Your task to perform on an android device: turn vacation reply on in the gmail app Image 0: 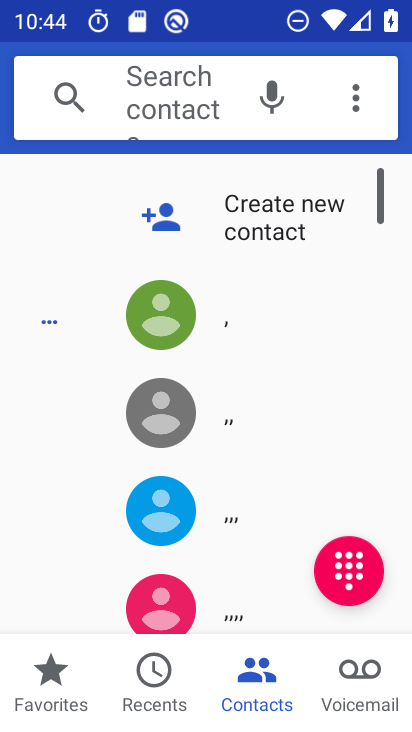
Step 0: press home button
Your task to perform on an android device: turn vacation reply on in the gmail app Image 1: 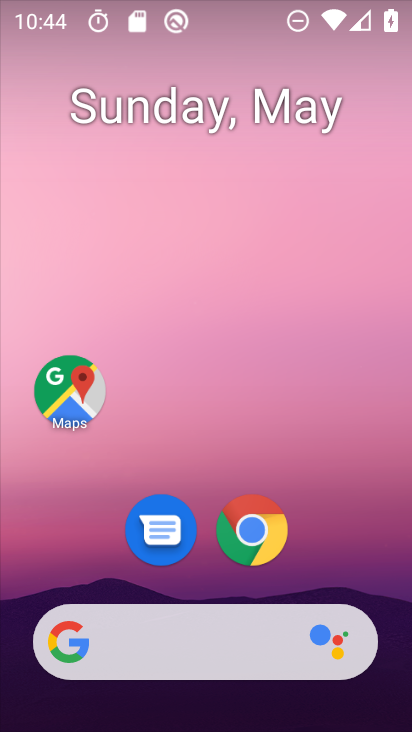
Step 1: drag from (263, 683) to (210, 63)
Your task to perform on an android device: turn vacation reply on in the gmail app Image 2: 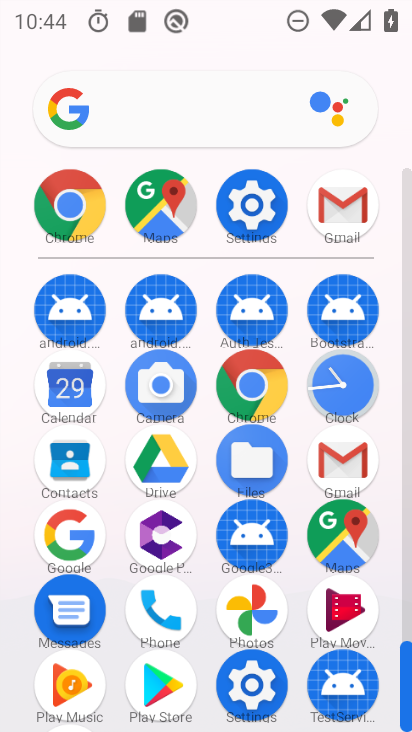
Step 2: click (326, 213)
Your task to perform on an android device: turn vacation reply on in the gmail app Image 3: 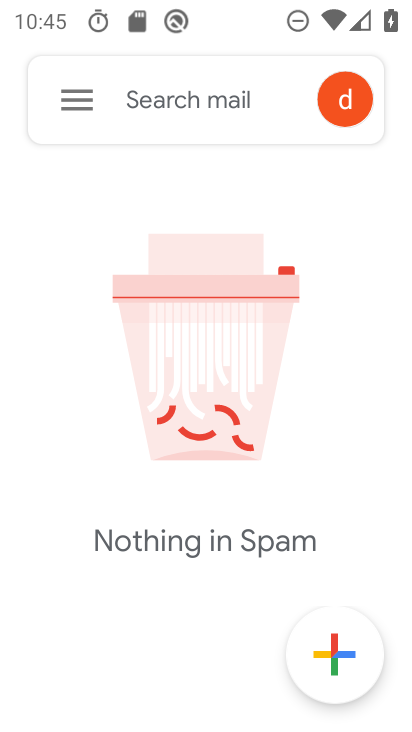
Step 3: click (68, 97)
Your task to perform on an android device: turn vacation reply on in the gmail app Image 4: 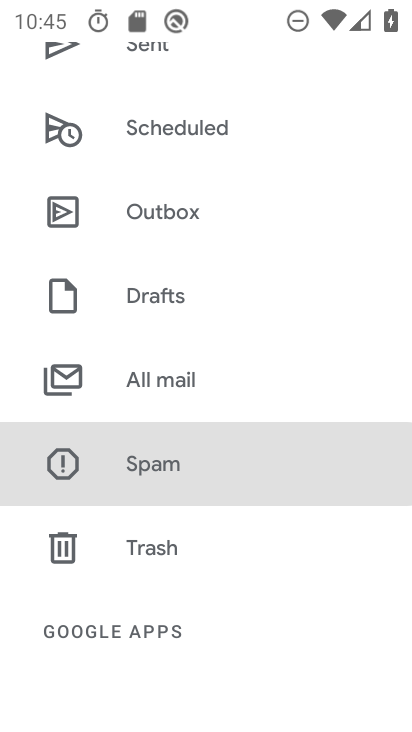
Step 4: drag from (168, 515) to (185, 320)
Your task to perform on an android device: turn vacation reply on in the gmail app Image 5: 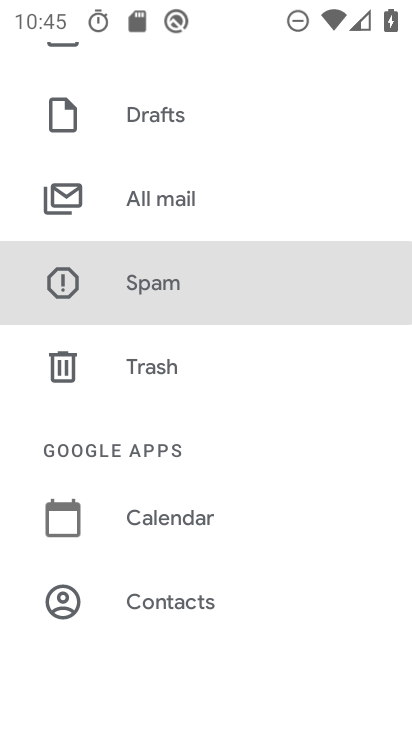
Step 5: drag from (145, 568) to (201, 161)
Your task to perform on an android device: turn vacation reply on in the gmail app Image 6: 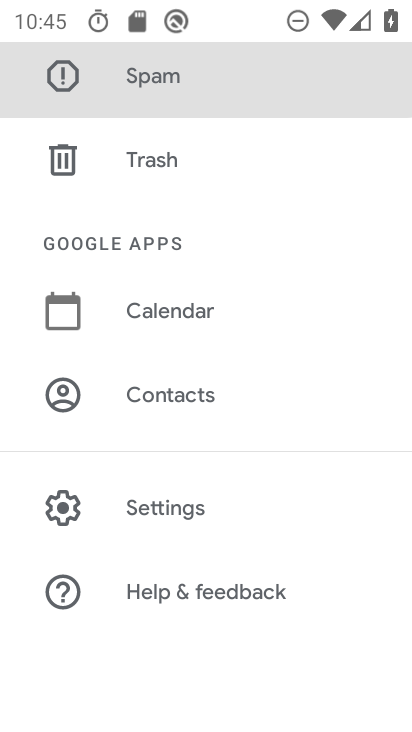
Step 6: drag from (194, 468) to (214, 265)
Your task to perform on an android device: turn vacation reply on in the gmail app Image 7: 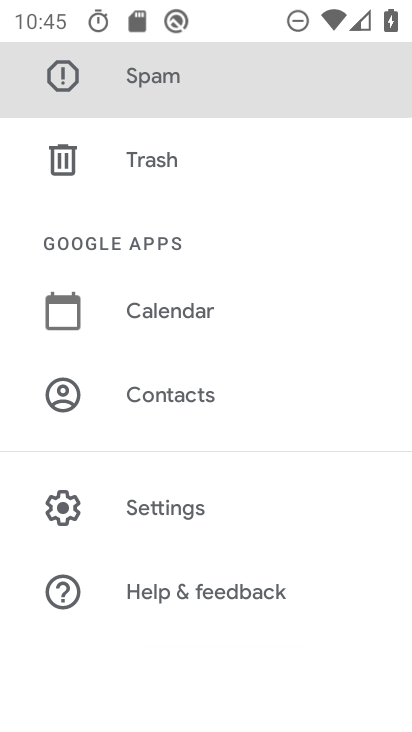
Step 7: click (167, 506)
Your task to perform on an android device: turn vacation reply on in the gmail app Image 8: 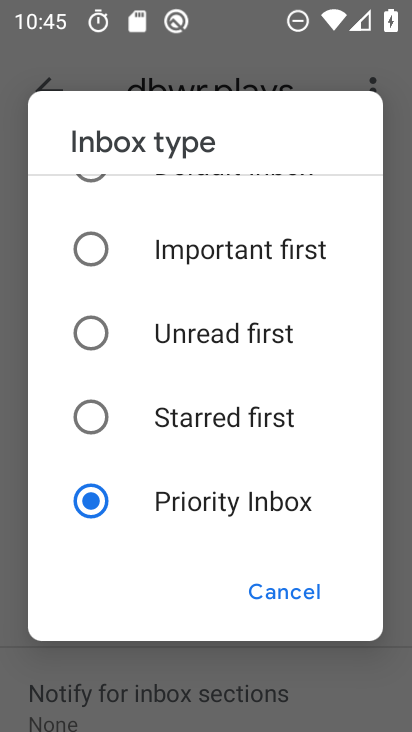
Step 8: click (273, 591)
Your task to perform on an android device: turn vacation reply on in the gmail app Image 9: 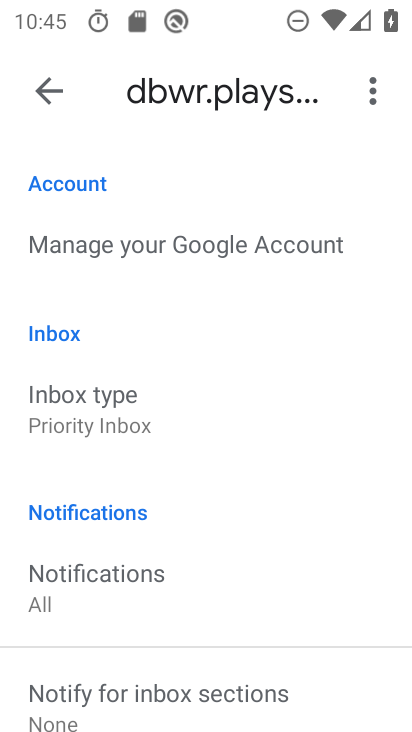
Step 9: drag from (268, 571) to (304, 239)
Your task to perform on an android device: turn vacation reply on in the gmail app Image 10: 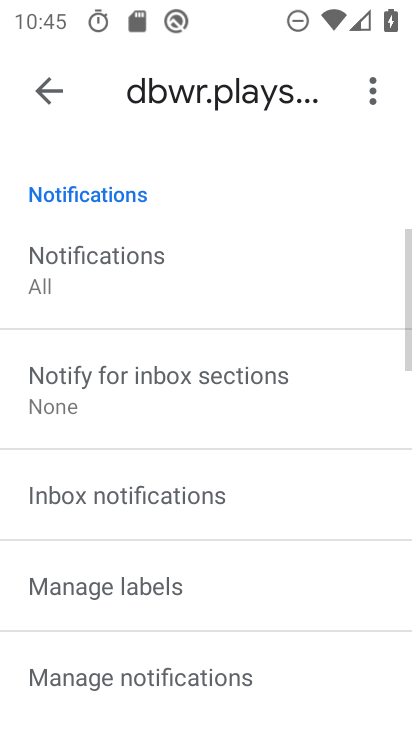
Step 10: drag from (280, 418) to (284, 312)
Your task to perform on an android device: turn vacation reply on in the gmail app Image 11: 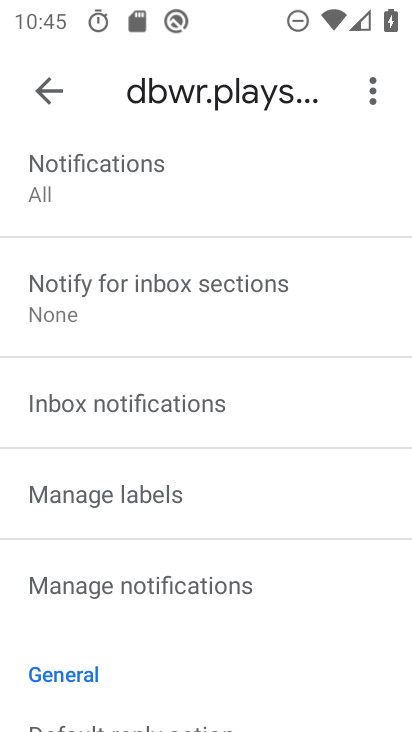
Step 11: drag from (213, 584) to (216, 325)
Your task to perform on an android device: turn vacation reply on in the gmail app Image 12: 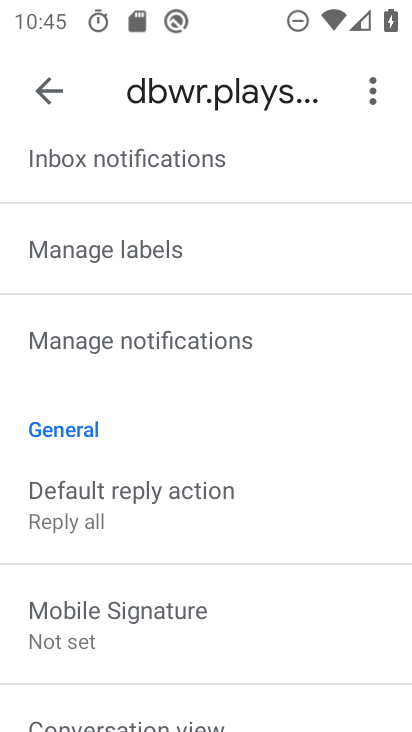
Step 12: drag from (214, 573) to (244, 287)
Your task to perform on an android device: turn vacation reply on in the gmail app Image 13: 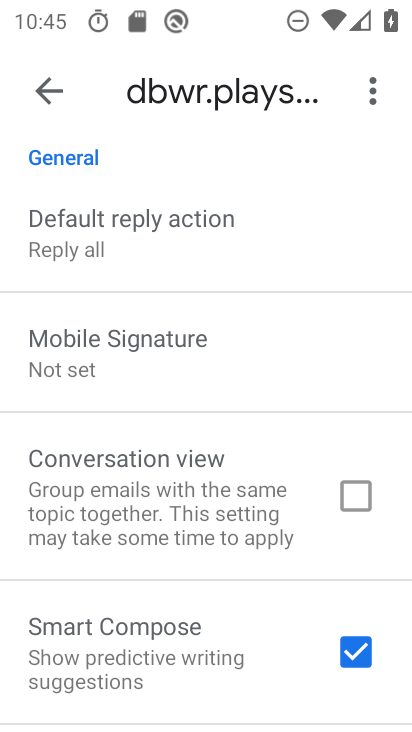
Step 13: drag from (173, 602) to (230, 230)
Your task to perform on an android device: turn vacation reply on in the gmail app Image 14: 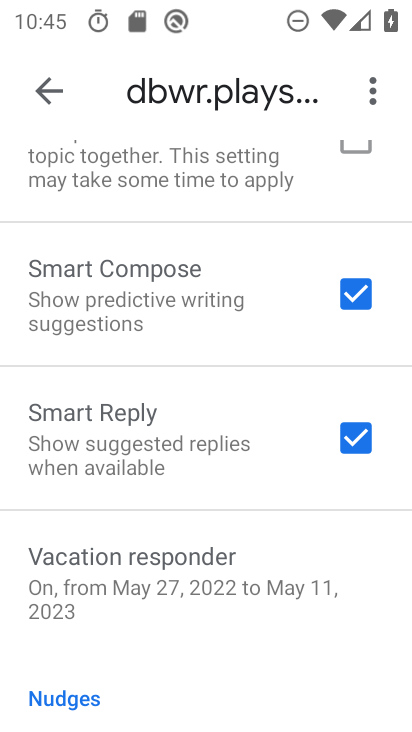
Step 14: click (159, 567)
Your task to perform on an android device: turn vacation reply on in the gmail app Image 15: 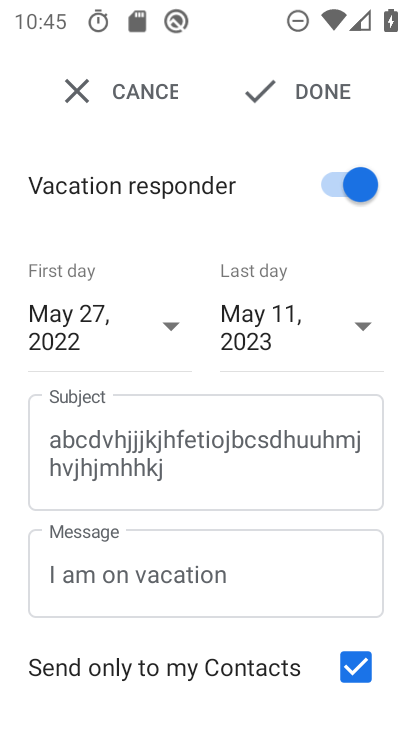
Step 15: task complete